Your task to perform on an android device: turn off wifi Image 0: 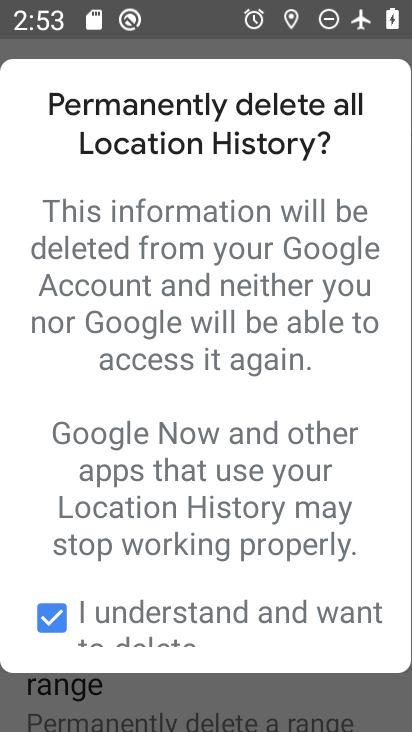
Step 0: press home button
Your task to perform on an android device: turn off wifi Image 1: 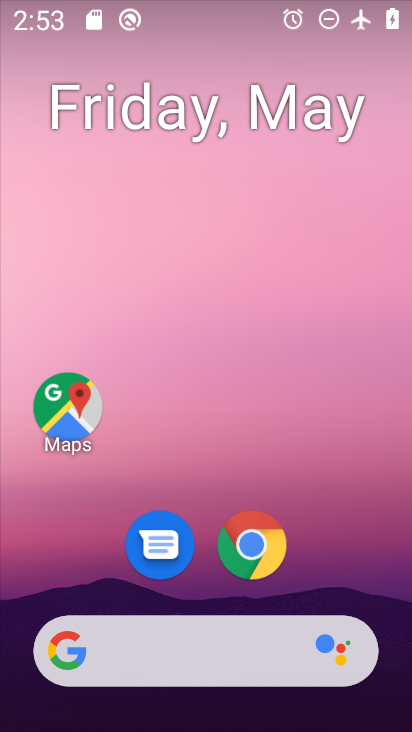
Step 1: drag from (301, 571) to (320, 199)
Your task to perform on an android device: turn off wifi Image 2: 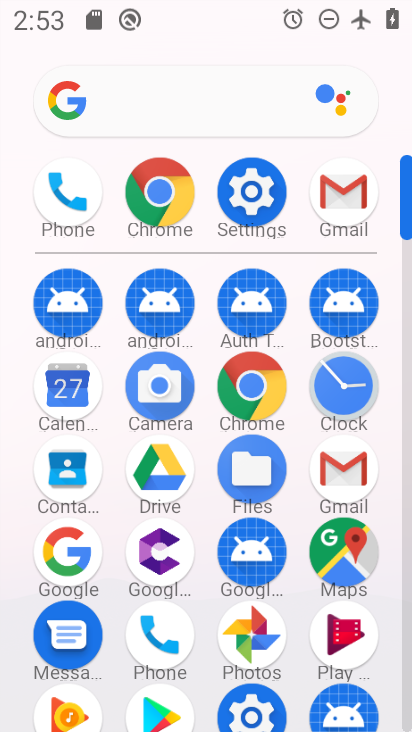
Step 2: click (252, 194)
Your task to perform on an android device: turn off wifi Image 3: 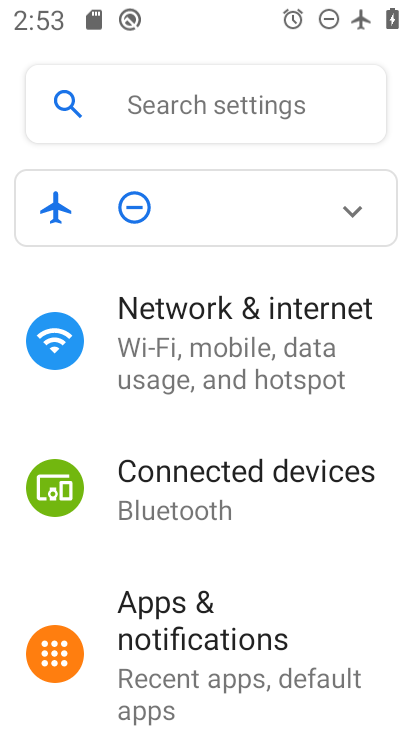
Step 3: click (218, 346)
Your task to perform on an android device: turn off wifi Image 4: 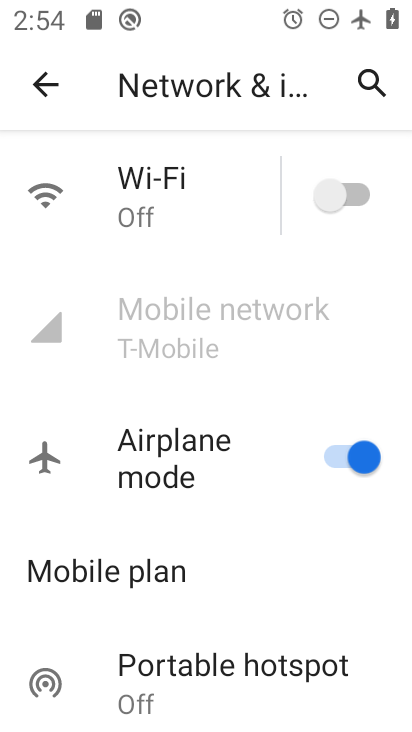
Step 4: task complete